Your task to perform on an android device: allow notifications from all sites in the chrome app Image 0: 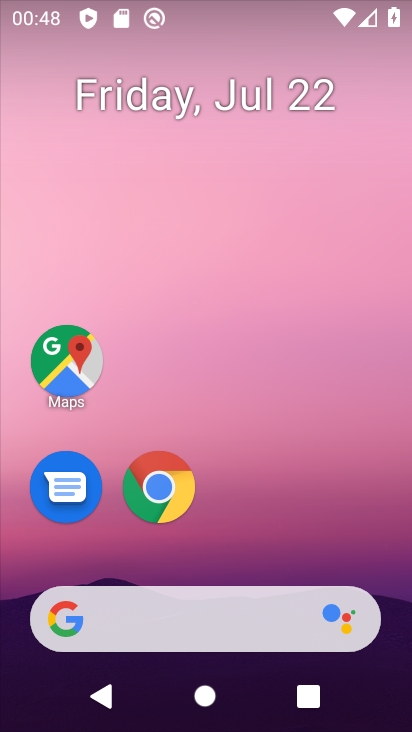
Step 0: click (166, 492)
Your task to perform on an android device: allow notifications from all sites in the chrome app Image 1: 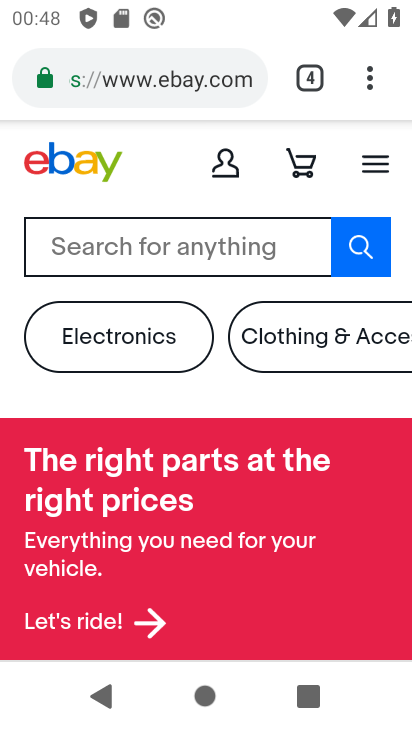
Step 1: drag from (370, 73) to (132, 551)
Your task to perform on an android device: allow notifications from all sites in the chrome app Image 2: 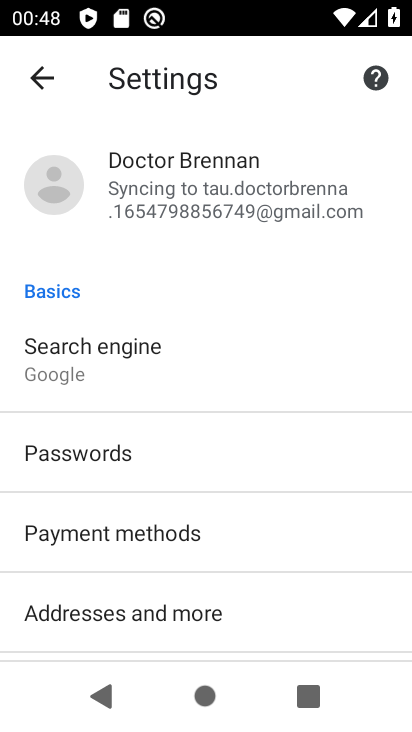
Step 2: drag from (220, 620) to (283, 287)
Your task to perform on an android device: allow notifications from all sites in the chrome app Image 3: 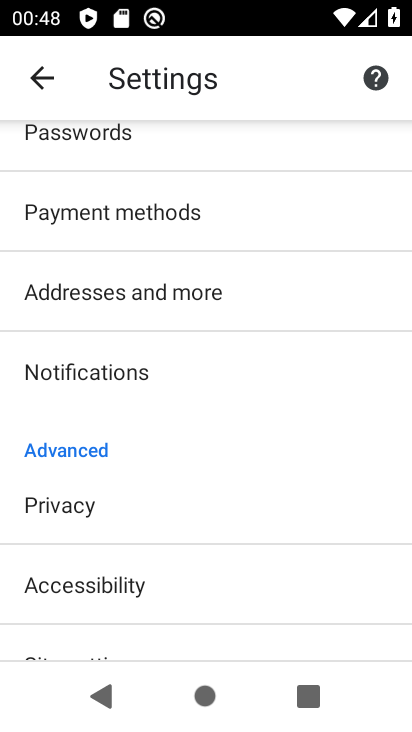
Step 3: click (92, 368)
Your task to perform on an android device: allow notifications from all sites in the chrome app Image 4: 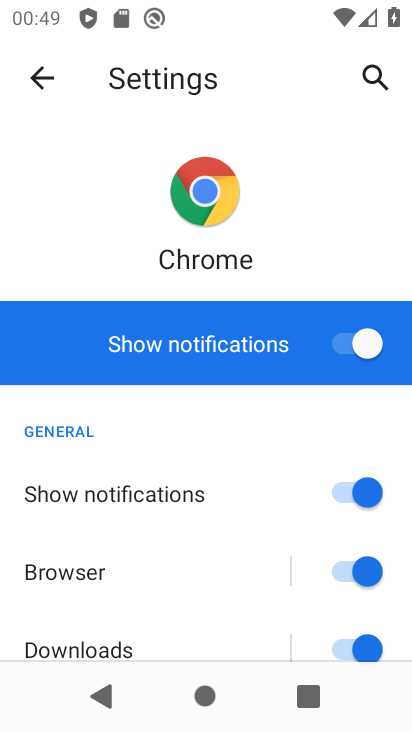
Step 4: task complete